Your task to perform on an android device: Do I have any events tomorrow? Image 0: 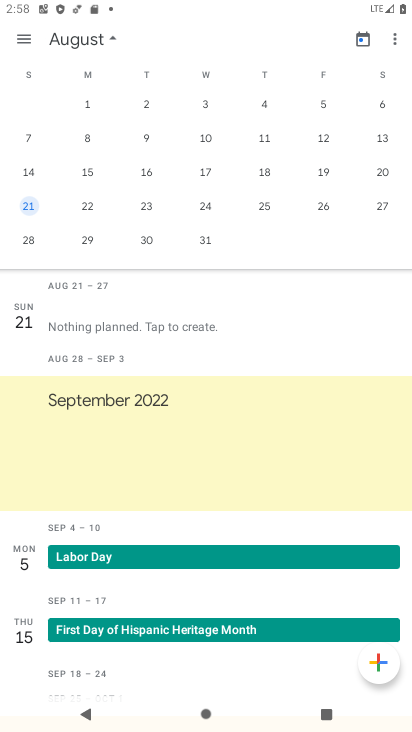
Step 0: drag from (53, 163) to (324, 216)
Your task to perform on an android device: Do I have any events tomorrow? Image 1: 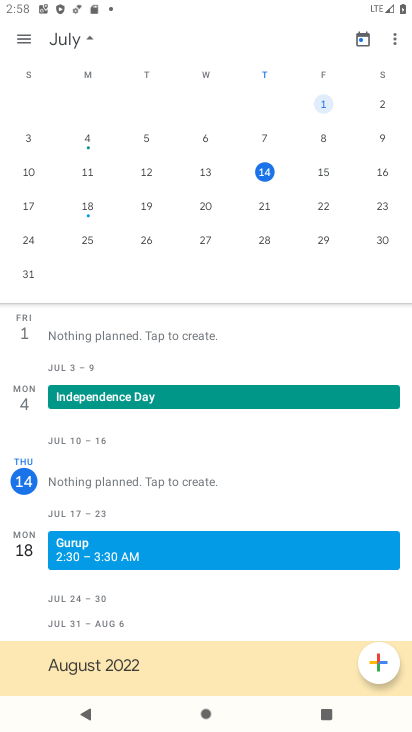
Step 1: click (321, 174)
Your task to perform on an android device: Do I have any events tomorrow? Image 2: 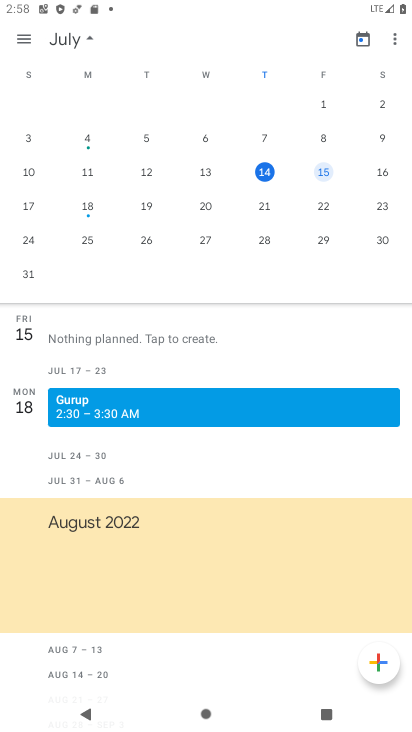
Step 2: task complete